Your task to perform on an android device: Go to wifi settings Image 0: 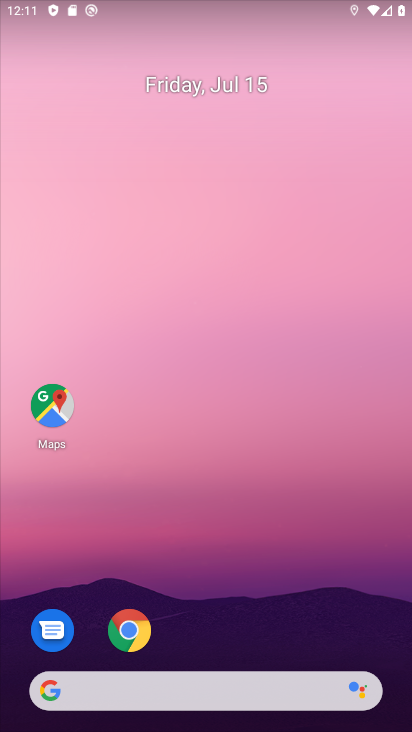
Step 0: drag from (185, 332) to (185, 138)
Your task to perform on an android device: Go to wifi settings Image 1: 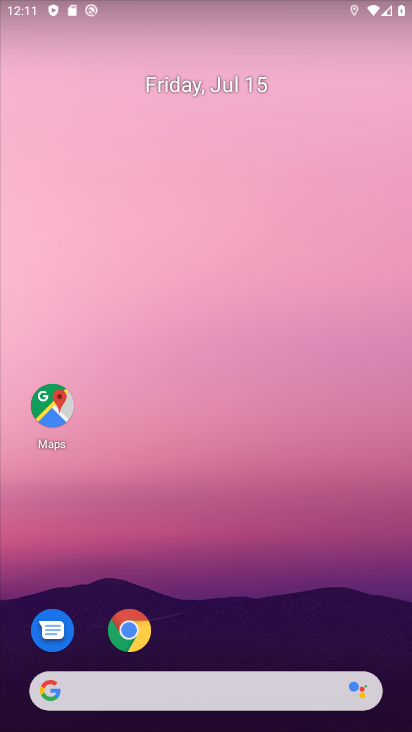
Step 1: drag from (208, 588) to (163, 49)
Your task to perform on an android device: Go to wifi settings Image 2: 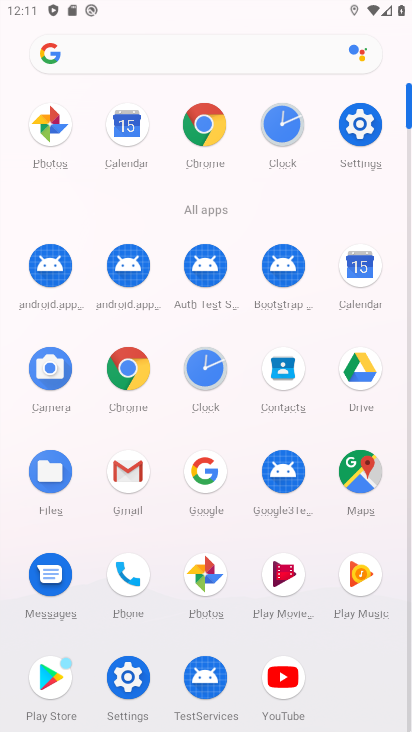
Step 2: click (369, 166)
Your task to perform on an android device: Go to wifi settings Image 3: 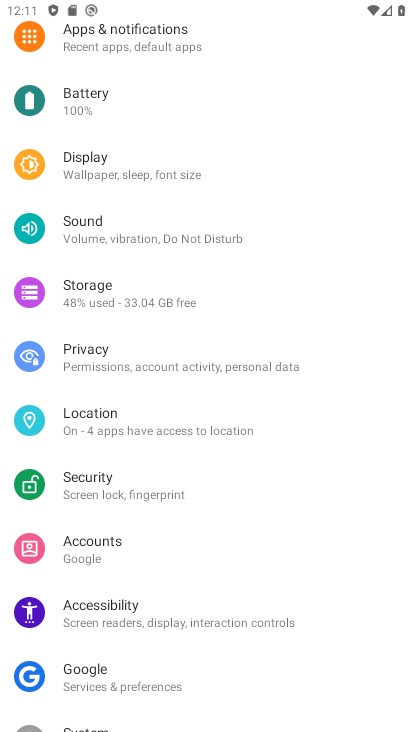
Step 3: drag from (253, 177) to (176, 696)
Your task to perform on an android device: Go to wifi settings Image 4: 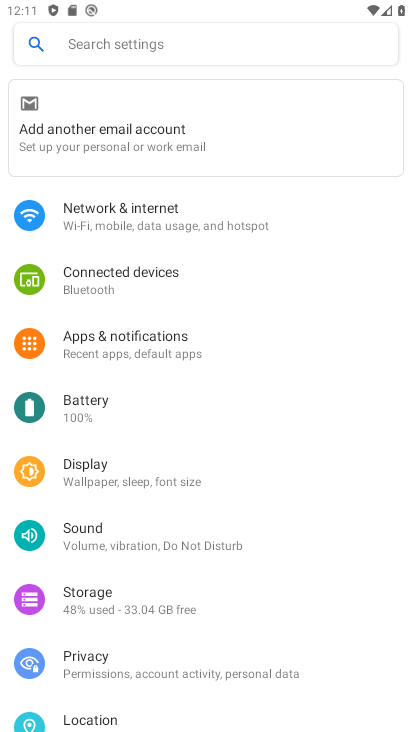
Step 4: click (163, 213)
Your task to perform on an android device: Go to wifi settings Image 5: 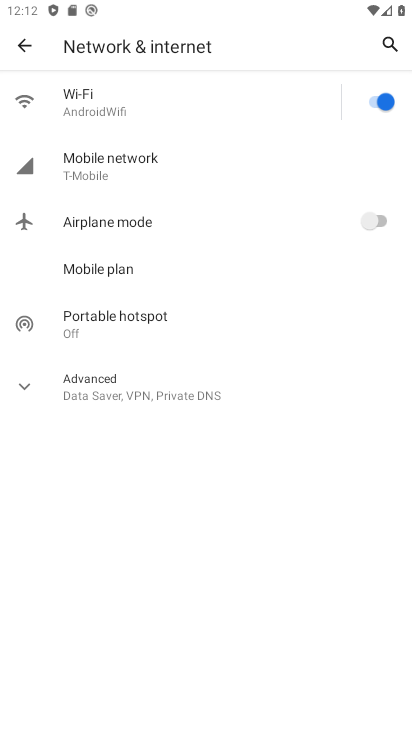
Step 5: click (121, 100)
Your task to perform on an android device: Go to wifi settings Image 6: 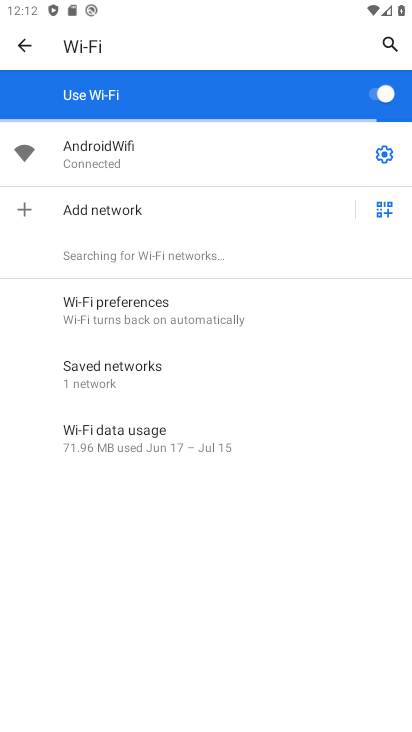
Step 6: task complete